Your task to perform on an android device: Open accessibility settings Image 0: 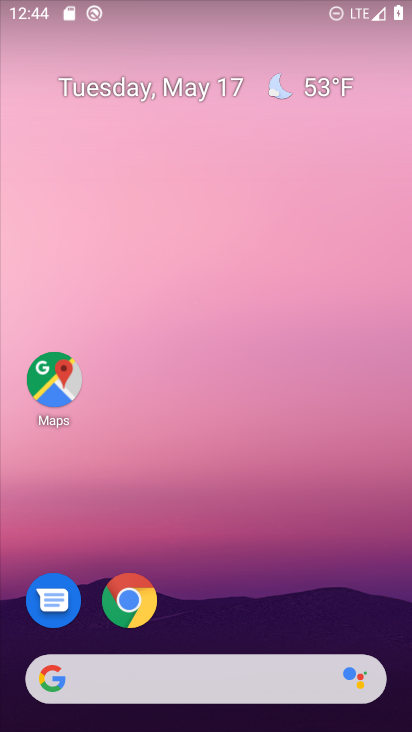
Step 0: drag from (209, 517) to (118, 5)
Your task to perform on an android device: Open accessibility settings Image 1: 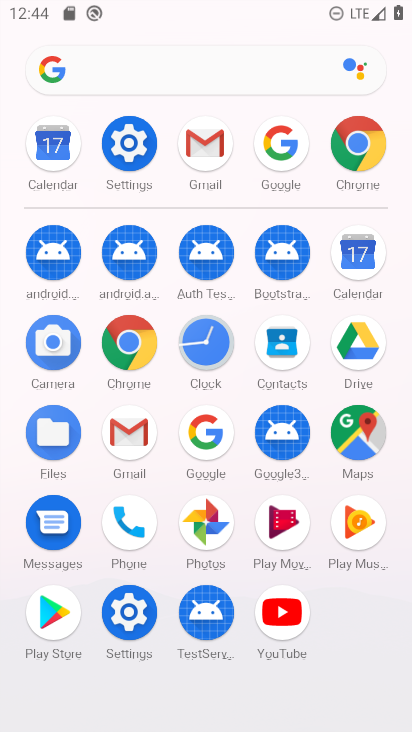
Step 1: click (123, 150)
Your task to perform on an android device: Open accessibility settings Image 2: 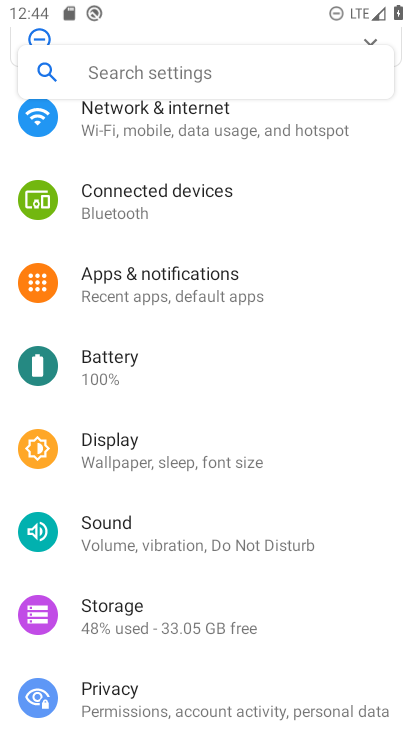
Step 2: drag from (207, 630) to (160, 248)
Your task to perform on an android device: Open accessibility settings Image 3: 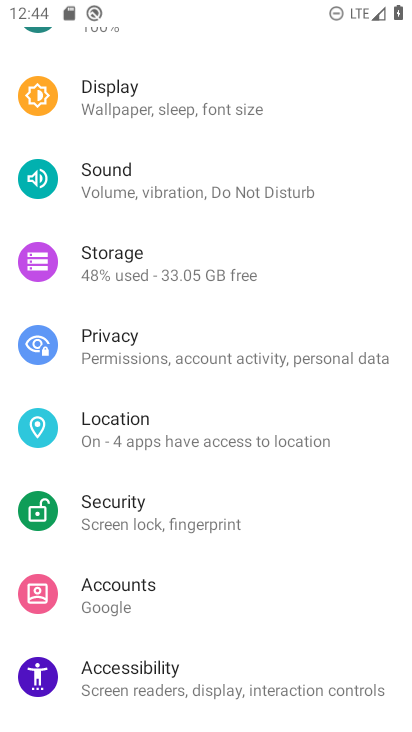
Step 3: click (159, 677)
Your task to perform on an android device: Open accessibility settings Image 4: 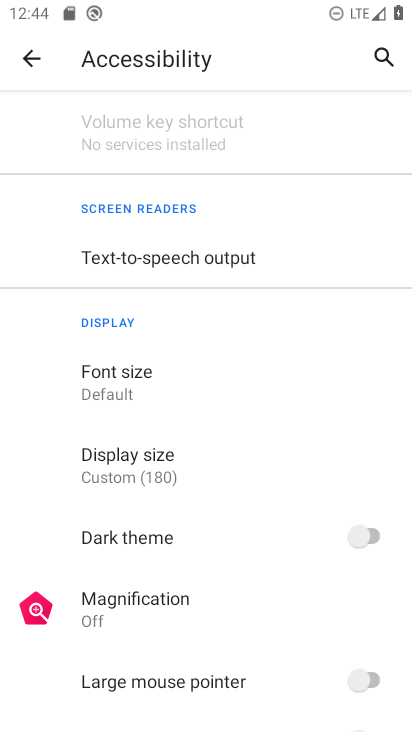
Step 4: task complete